Your task to perform on an android device: Search for sushi restaurants on Maps Image 0: 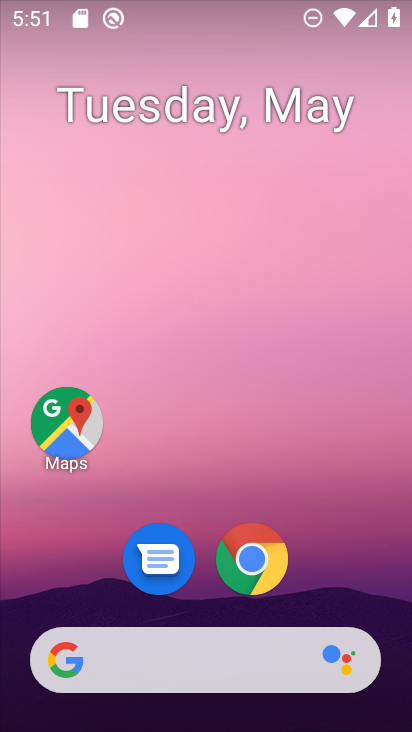
Step 0: click (81, 427)
Your task to perform on an android device: Search for sushi restaurants on Maps Image 1: 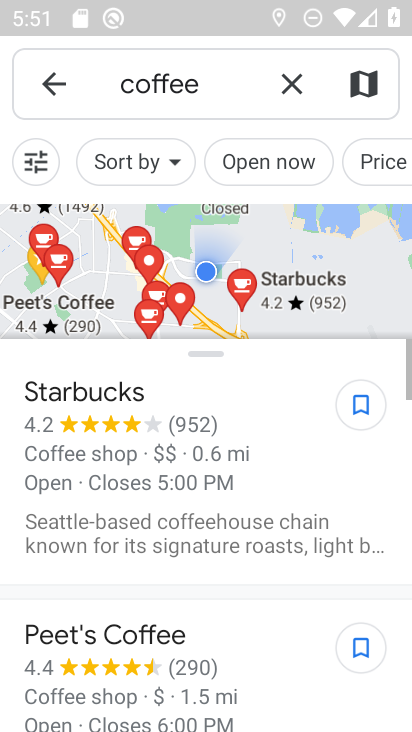
Step 1: click (300, 81)
Your task to perform on an android device: Search for sushi restaurants on Maps Image 2: 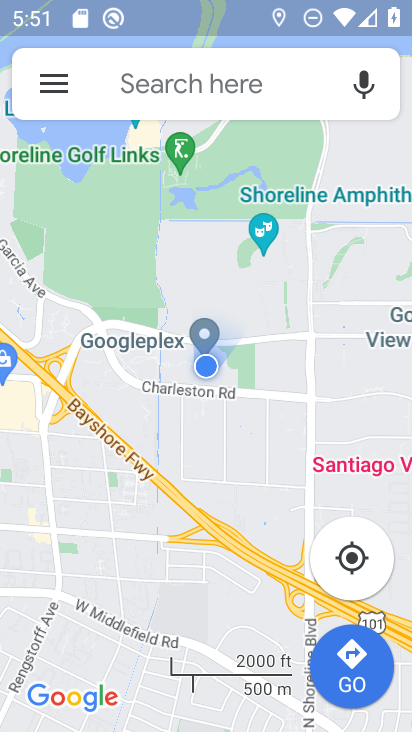
Step 2: click (203, 79)
Your task to perform on an android device: Search for sushi restaurants on Maps Image 3: 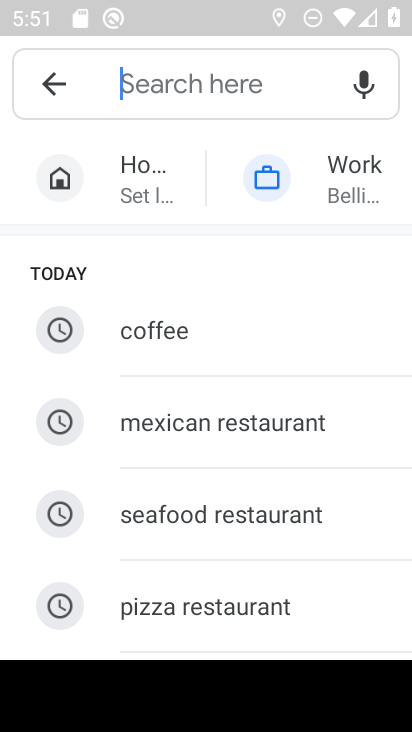
Step 3: drag from (182, 558) to (181, 318)
Your task to perform on an android device: Search for sushi restaurants on Maps Image 4: 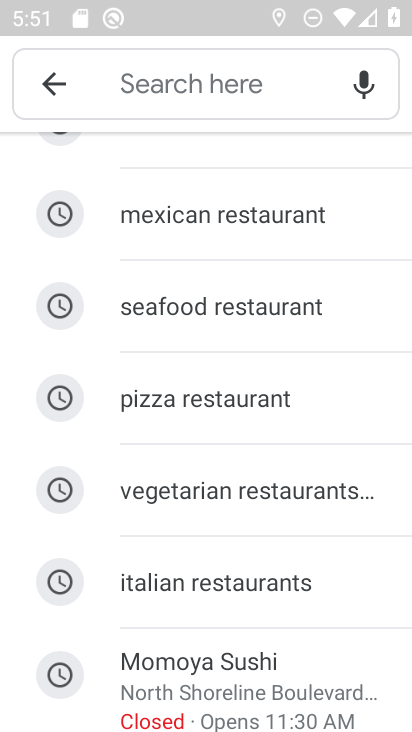
Step 4: click (199, 79)
Your task to perform on an android device: Search for sushi restaurants on Maps Image 5: 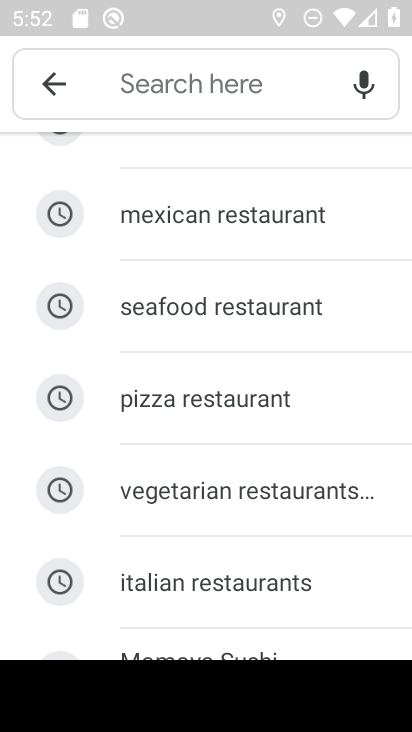
Step 5: type "sushi restaurants"
Your task to perform on an android device: Search for sushi restaurants on Maps Image 6: 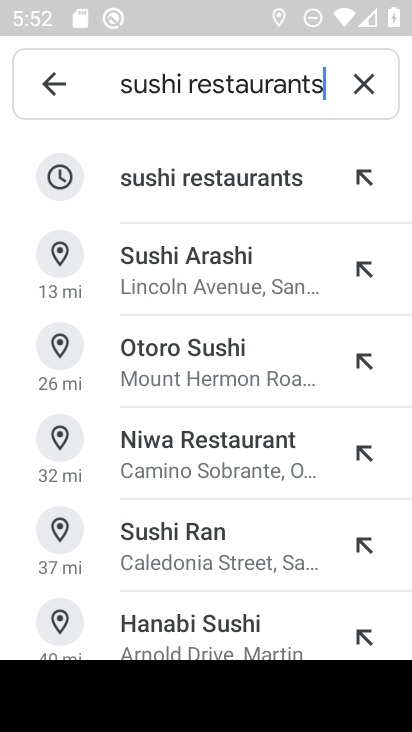
Step 6: click (272, 177)
Your task to perform on an android device: Search for sushi restaurants on Maps Image 7: 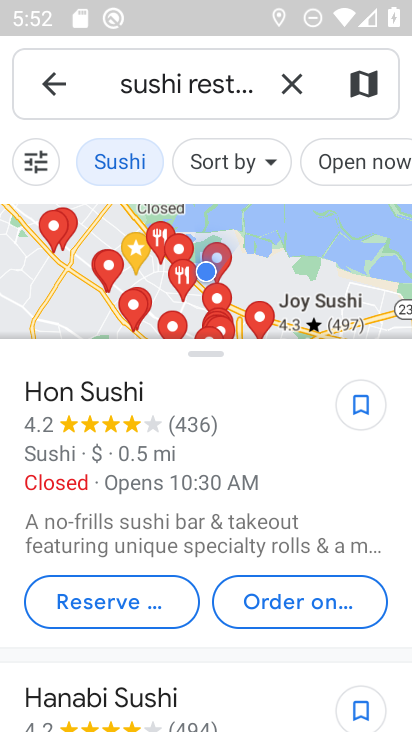
Step 7: task complete